Your task to perform on an android device: Open location settings Image 0: 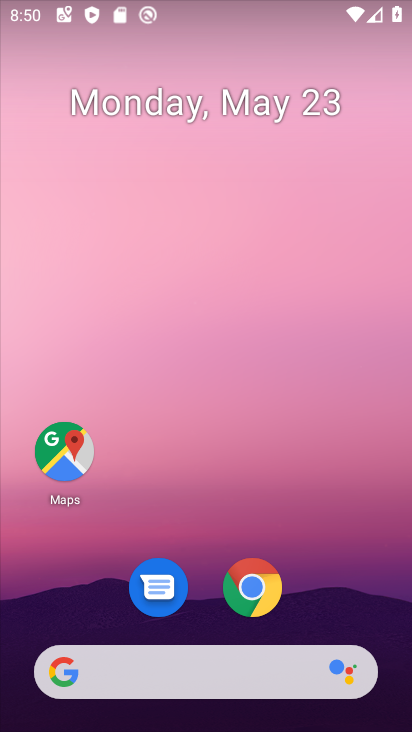
Step 0: drag from (320, 608) to (216, 7)
Your task to perform on an android device: Open location settings Image 1: 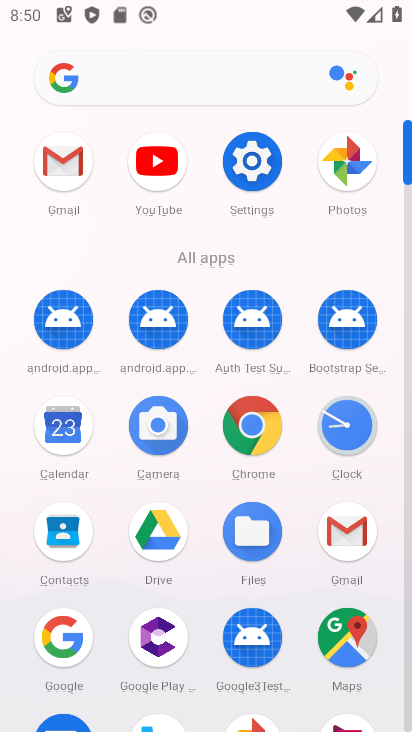
Step 1: click (265, 173)
Your task to perform on an android device: Open location settings Image 2: 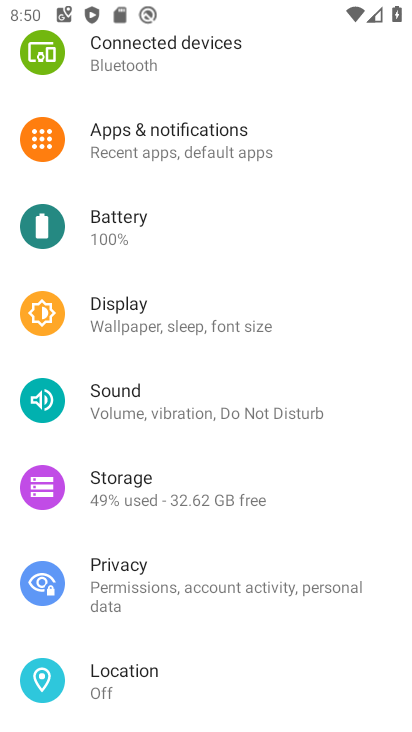
Step 2: click (156, 672)
Your task to perform on an android device: Open location settings Image 3: 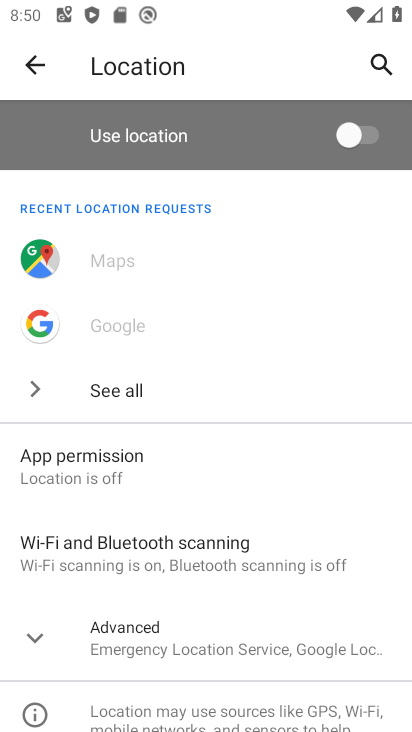
Step 3: drag from (193, 286) to (208, 124)
Your task to perform on an android device: Open location settings Image 4: 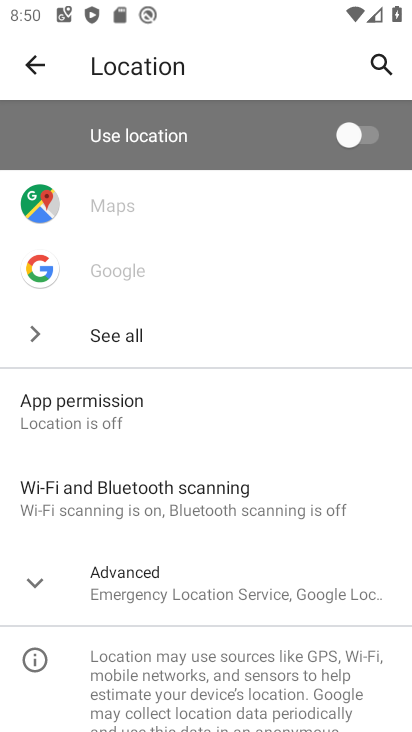
Step 4: click (224, 598)
Your task to perform on an android device: Open location settings Image 5: 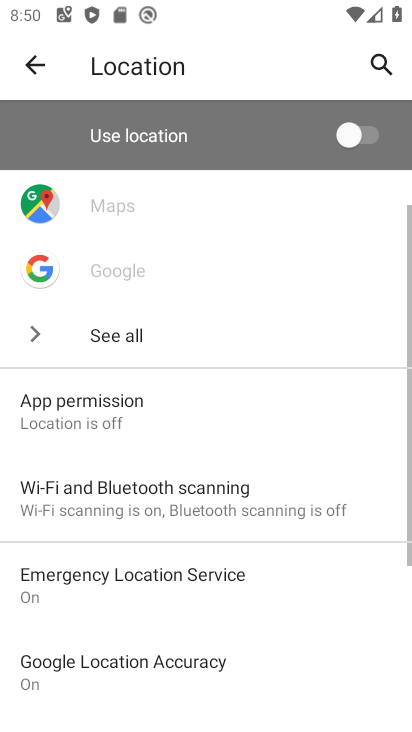
Step 5: click (224, 598)
Your task to perform on an android device: Open location settings Image 6: 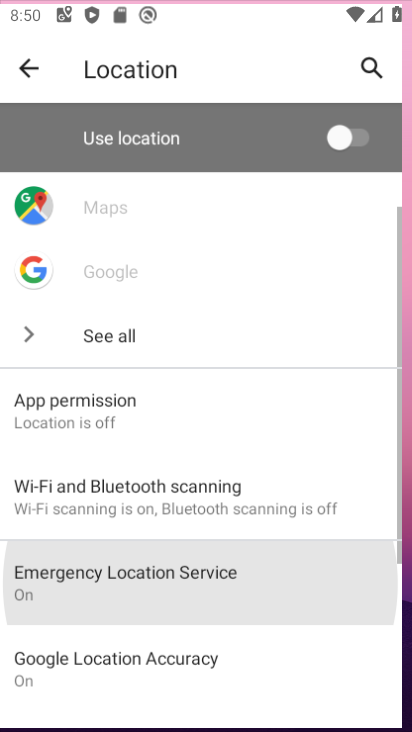
Step 6: drag from (224, 598) to (212, 259)
Your task to perform on an android device: Open location settings Image 7: 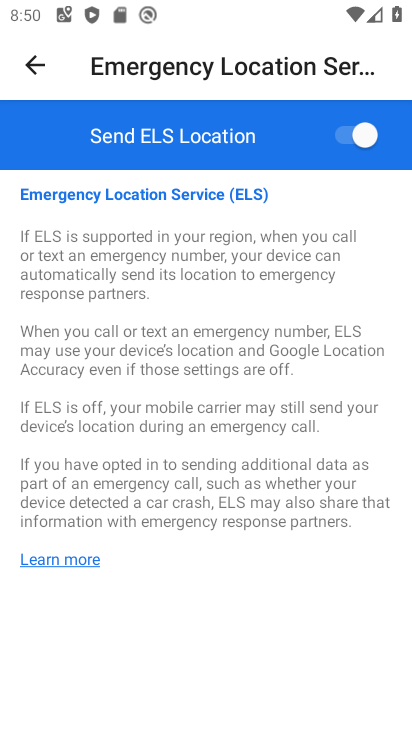
Step 7: click (35, 58)
Your task to perform on an android device: Open location settings Image 8: 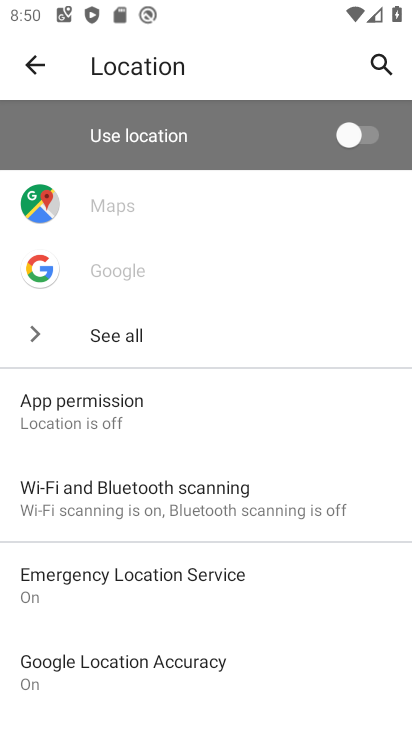
Step 8: task complete